Your task to perform on an android device: find which apps use the phone's location Image 0: 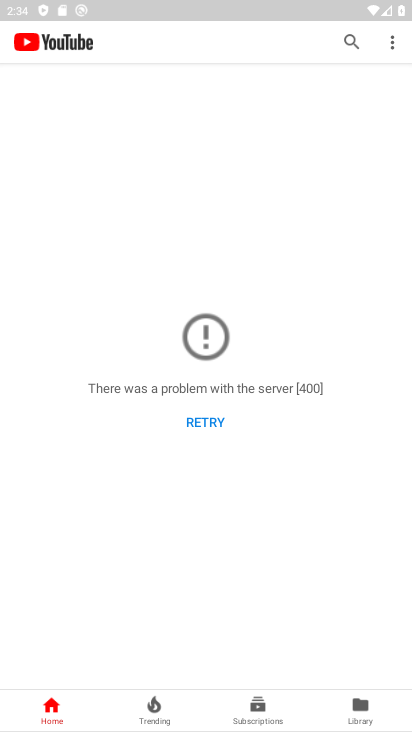
Step 0: press back button
Your task to perform on an android device: find which apps use the phone's location Image 1: 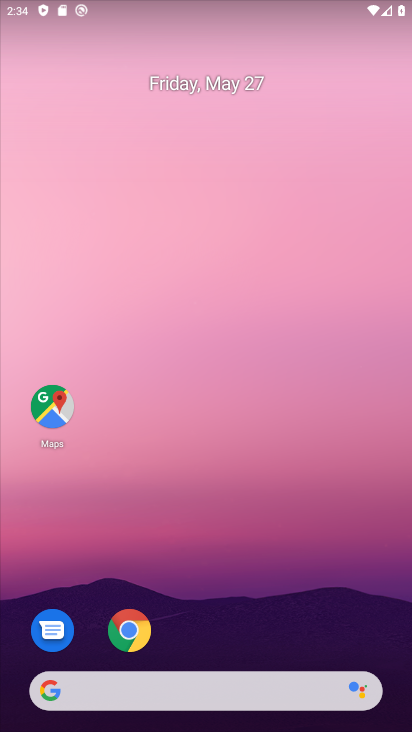
Step 1: drag from (221, 670) to (230, 83)
Your task to perform on an android device: find which apps use the phone's location Image 2: 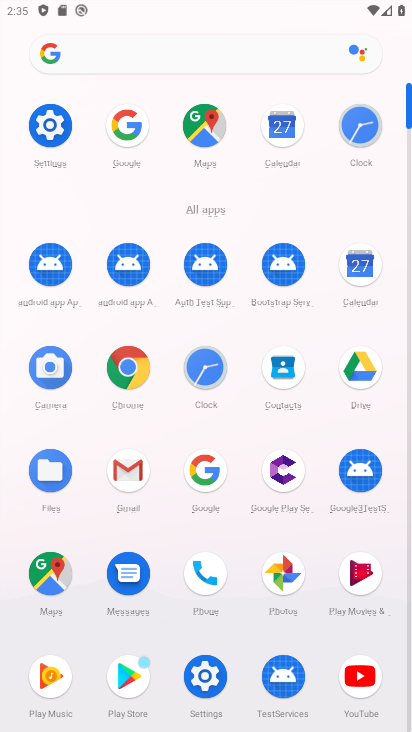
Step 2: click (39, 128)
Your task to perform on an android device: find which apps use the phone's location Image 3: 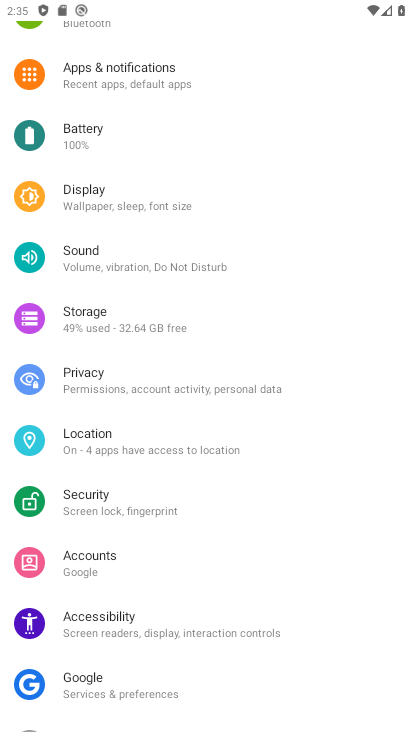
Step 3: click (81, 435)
Your task to perform on an android device: find which apps use the phone's location Image 4: 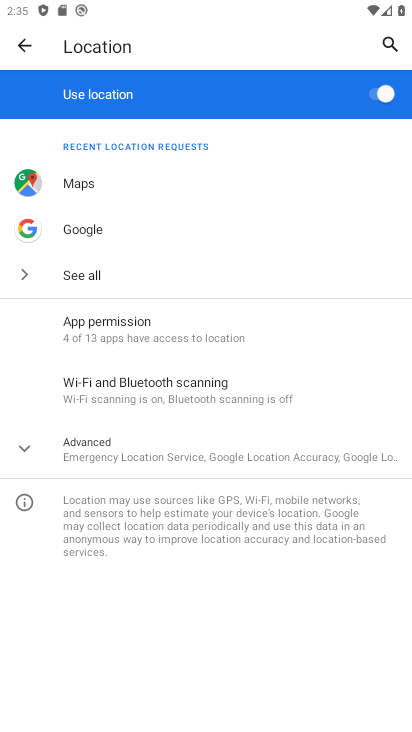
Step 4: click (186, 315)
Your task to perform on an android device: find which apps use the phone's location Image 5: 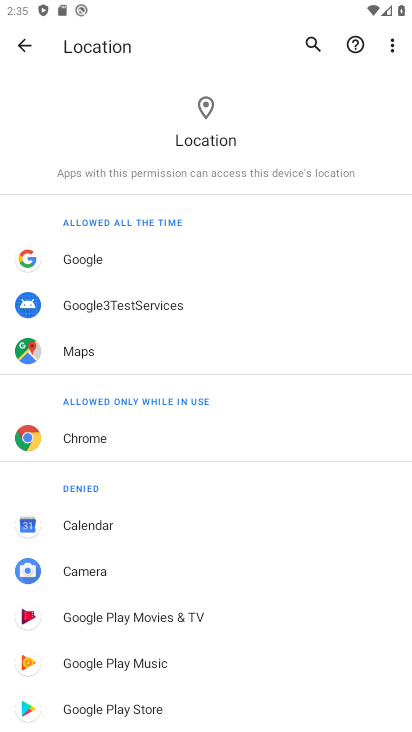
Step 5: task complete